Your task to perform on an android device: open a new tab in the chrome app Image 0: 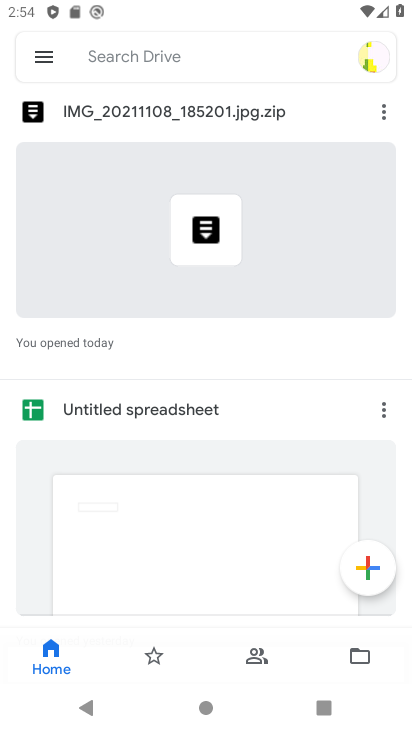
Step 0: press home button
Your task to perform on an android device: open a new tab in the chrome app Image 1: 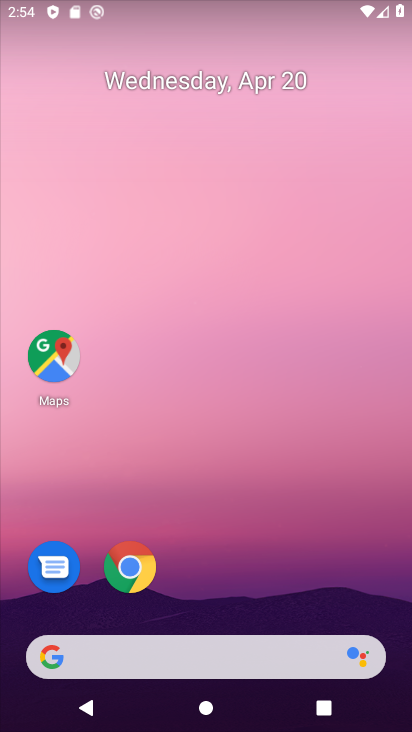
Step 1: click (127, 560)
Your task to perform on an android device: open a new tab in the chrome app Image 2: 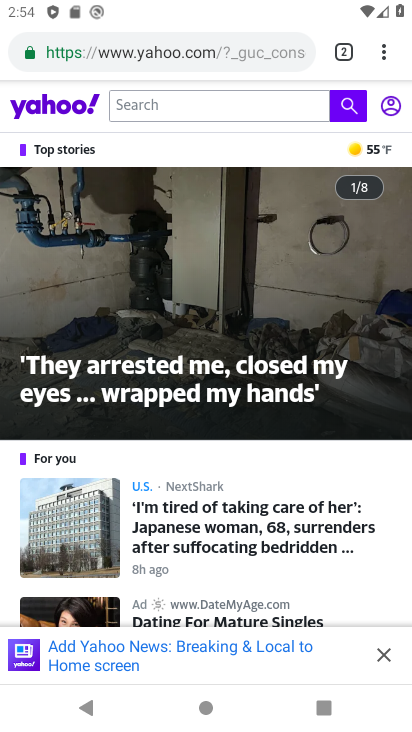
Step 2: click (376, 56)
Your task to perform on an android device: open a new tab in the chrome app Image 3: 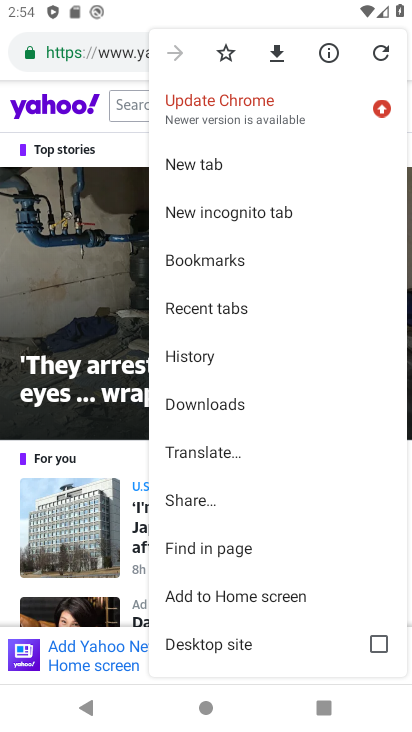
Step 3: click (211, 165)
Your task to perform on an android device: open a new tab in the chrome app Image 4: 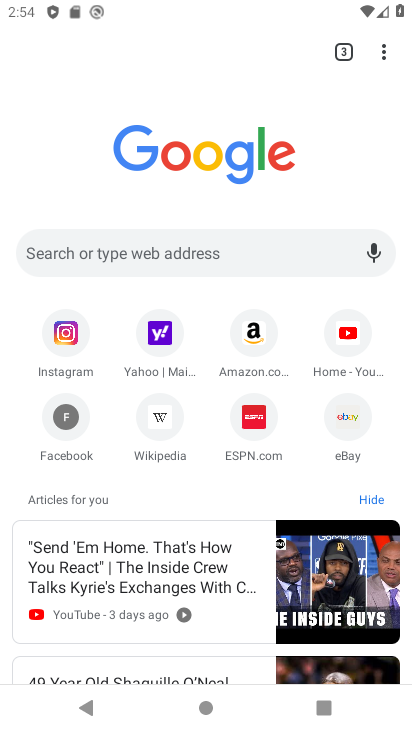
Step 4: task complete